Your task to perform on an android device: set an alarm Image 0: 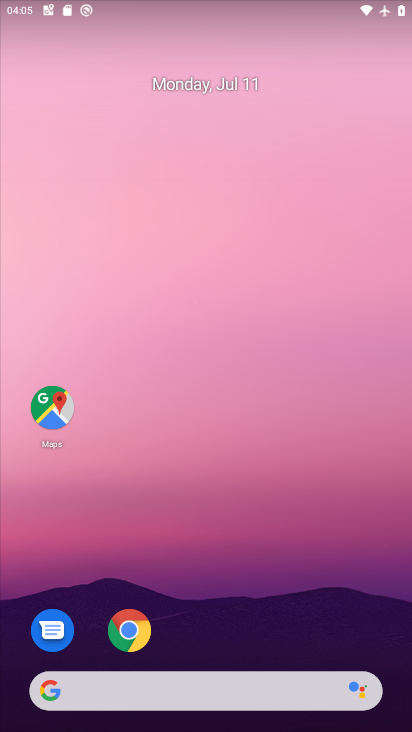
Step 0: drag from (231, 648) to (320, 0)
Your task to perform on an android device: set an alarm Image 1: 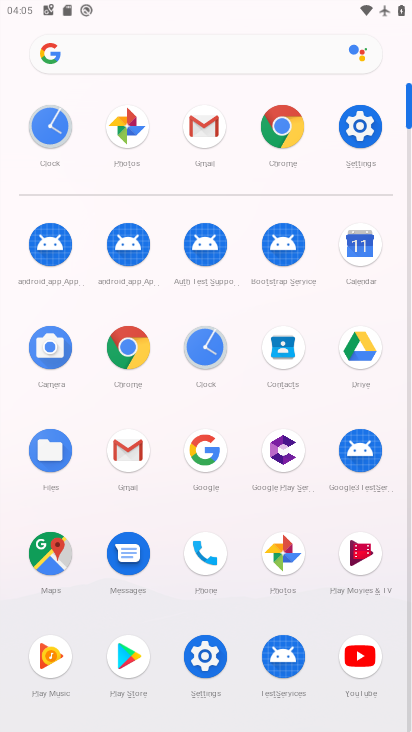
Step 1: click (62, 148)
Your task to perform on an android device: set an alarm Image 2: 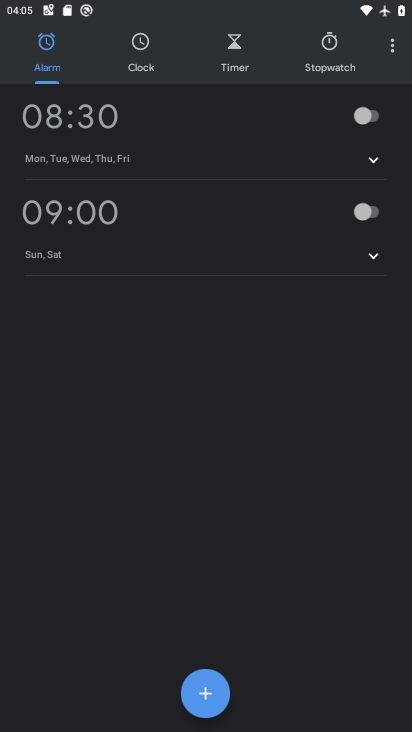
Step 2: click (348, 115)
Your task to perform on an android device: set an alarm Image 3: 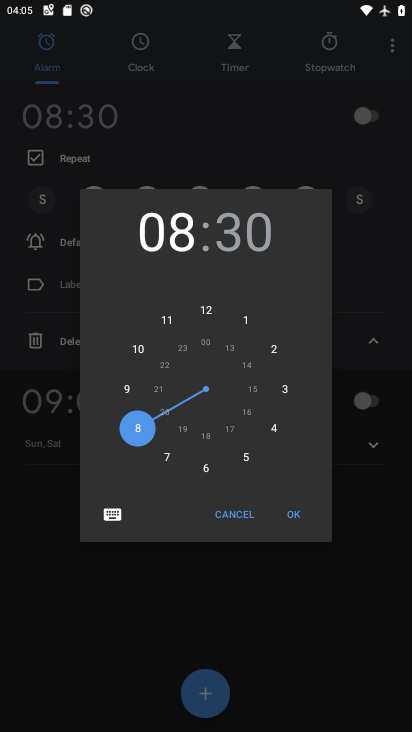
Step 3: task complete